Your task to perform on an android device: Open calendar and show me the first week of next month Image 0: 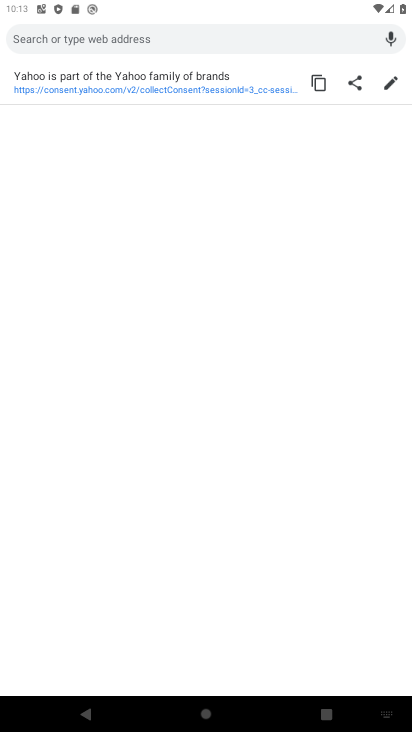
Step 0: press home button
Your task to perform on an android device: Open calendar and show me the first week of next month Image 1: 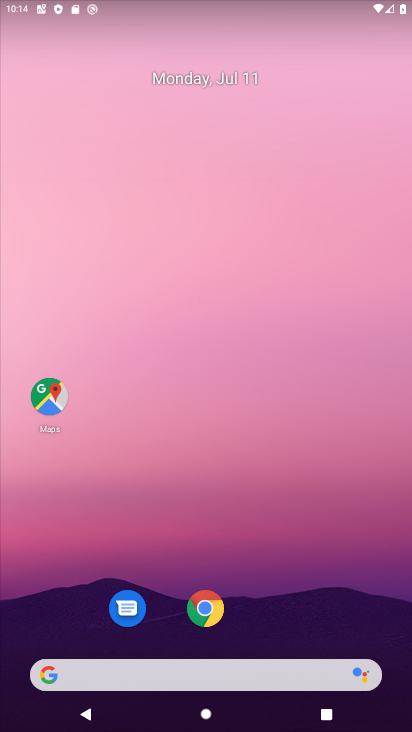
Step 1: drag from (158, 485) to (251, 215)
Your task to perform on an android device: Open calendar and show me the first week of next month Image 2: 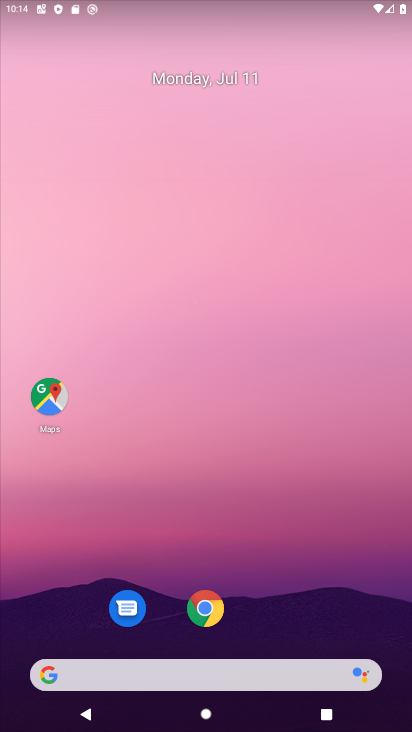
Step 2: drag from (131, 447) to (257, 44)
Your task to perform on an android device: Open calendar and show me the first week of next month Image 3: 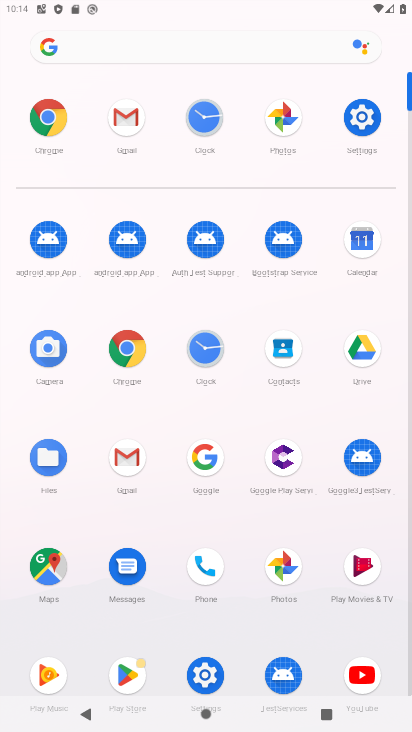
Step 3: click (363, 241)
Your task to perform on an android device: Open calendar and show me the first week of next month Image 4: 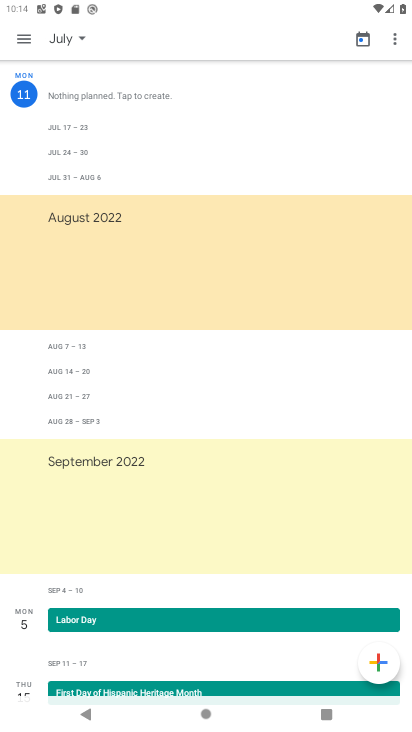
Step 4: click (16, 41)
Your task to perform on an android device: Open calendar and show me the first week of next month Image 5: 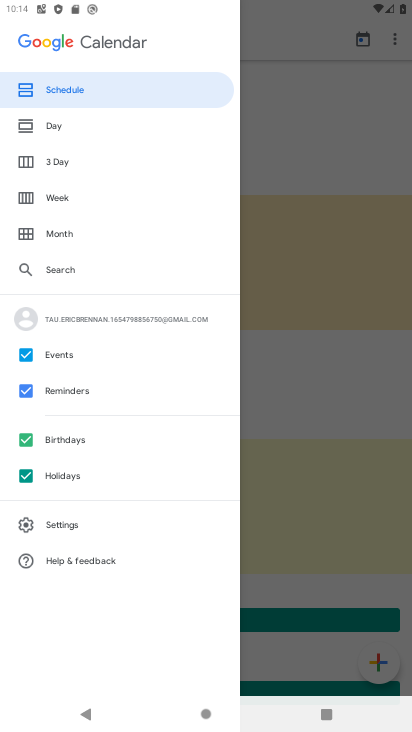
Step 5: click (308, 96)
Your task to perform on an android device: Open calendar and show me the first week of next month Image 6: 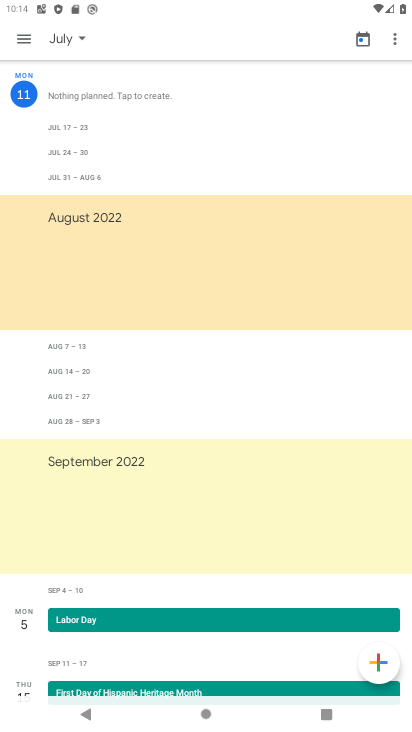
Step 6: drag from (307, 159) to (27, 252)
Your task to perform on an android device: Open calendar and show me the first week of next month Image 7: 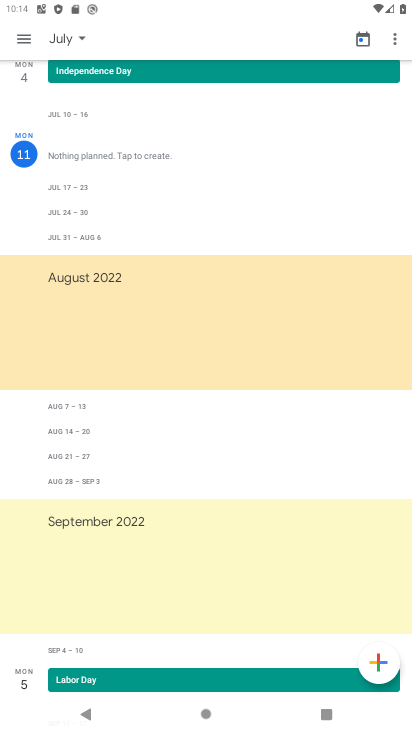
Step 7: click (68, 40)
Your task to perform on an android device: Open calendar and show me the first week of next month Image 8: 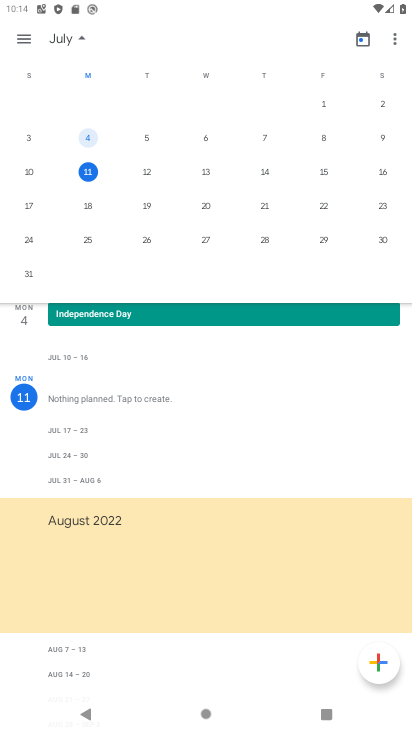
Step 8: click (365, 165)
Your task to perform on an android device: Open calendar and show me the first week of next month Image 9: 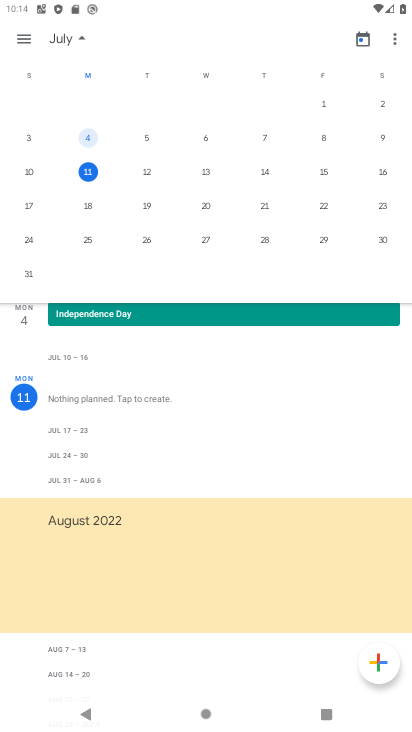
Step 9: drag from (366, 165) to (10, 229)
Your task to perform on an android device: Open calendar and show me the first week of next month Image 10: 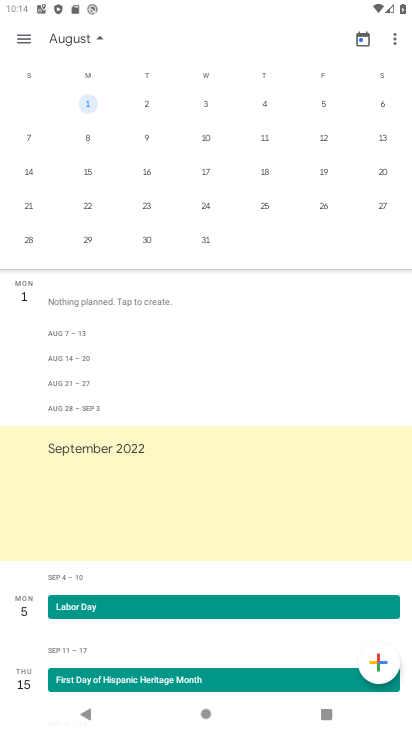
Step 10: click (78, 94)
Your task to perform on an android device: Open calendar and show me the first week of next month Image 11: 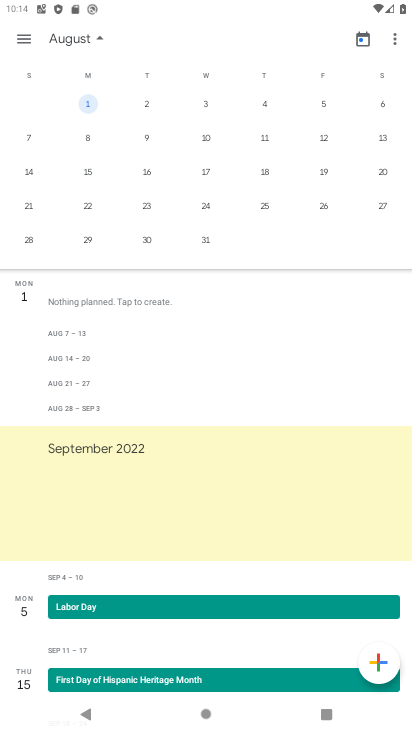
Step 11: task complete